Your task to perform on an android device: refresh tabs in the chrome app Image 0: 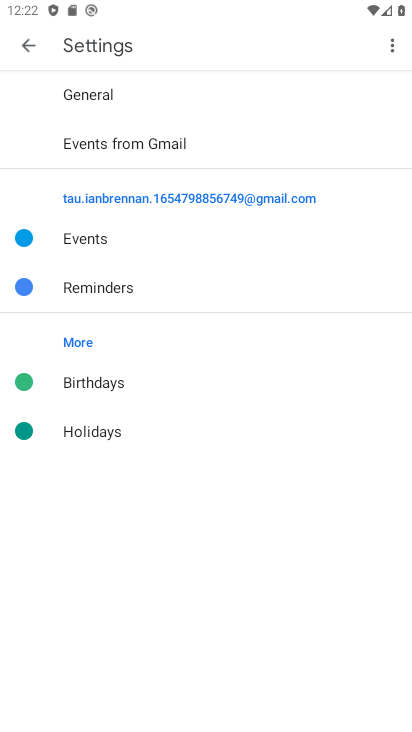
Step 0: press home button
Your task to perform on an android device: refresh tabs in the chrome app Image 1: 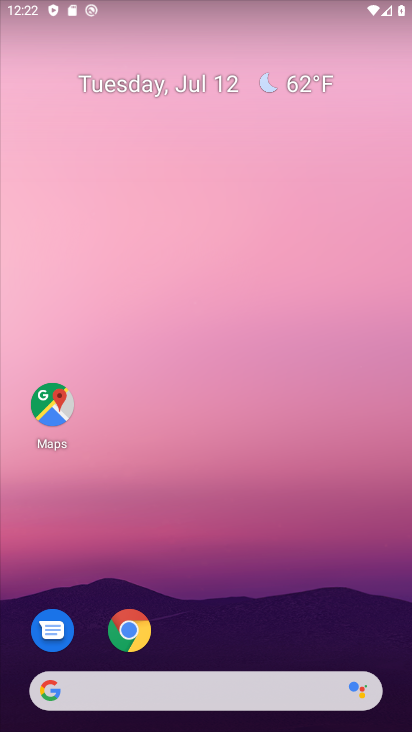
Step 1: click (133, 632)
Your task to perform on an android device: refresh tabs in the chrome app Image 2: 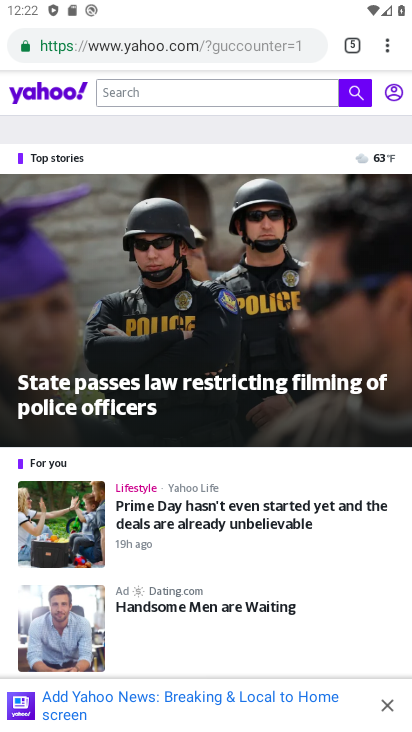
Step 2: click (385, 43)
Your task to perform on an android device: refresh tabs in the chrome app Image 3: 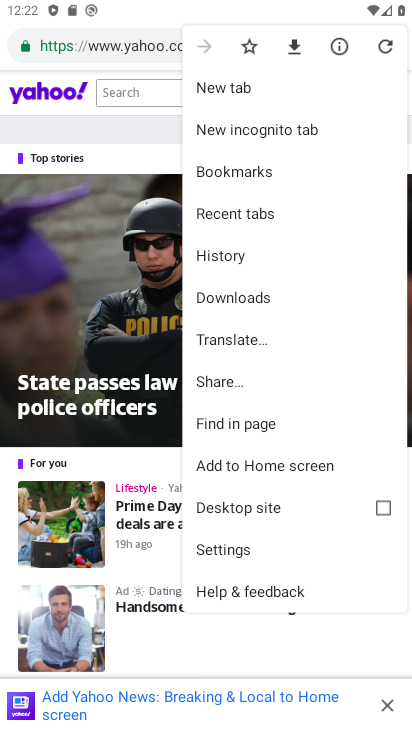
Step 3: click (387, 51)
Your task to perform on an android device: refresh tabs in the chrome app Image 4: 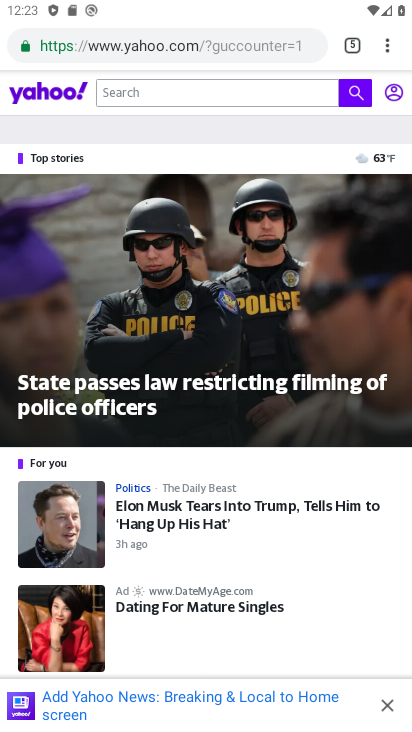
Step 4: task complete